Your task to perform on an android device: move an email to a new category in the gmail app Image 0: 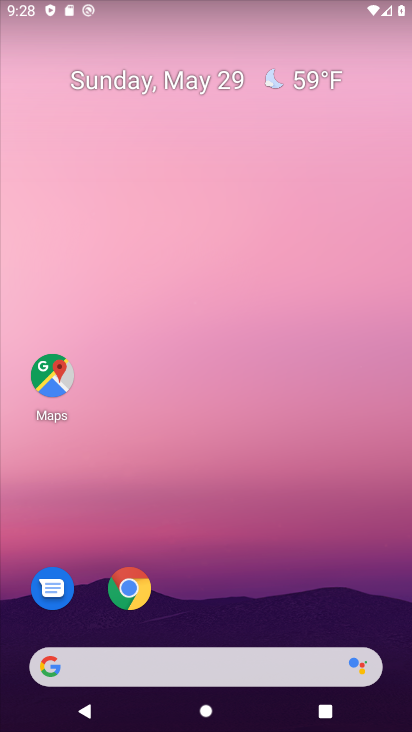
Step 0: drag from (255, 618) to (226, 113)
Your task to perform on an android device: move an email to a new category in the gmail app Image 1: 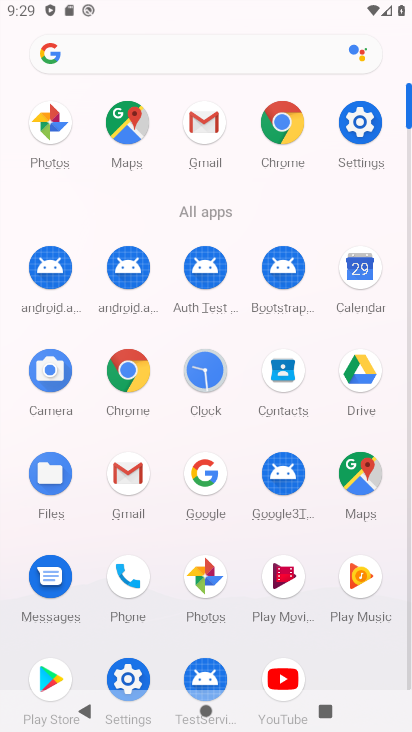
Step 1: click (213, 118)
Your task to perform on an android device: move an email to a new category in the gmail app Image 2: 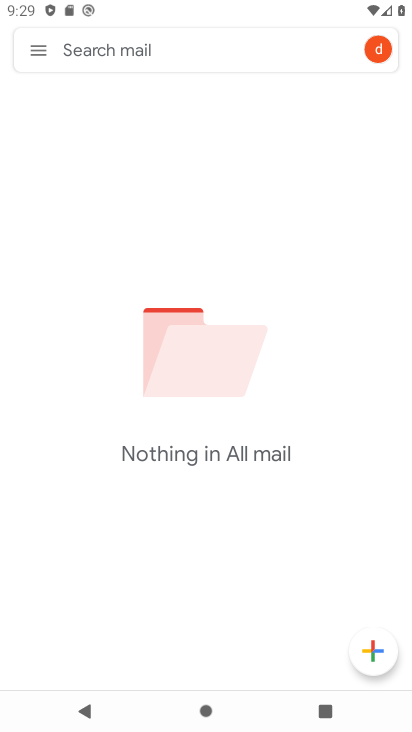
Step 2: task complete